Your task to perform on an android device: Check the weather Image 0: 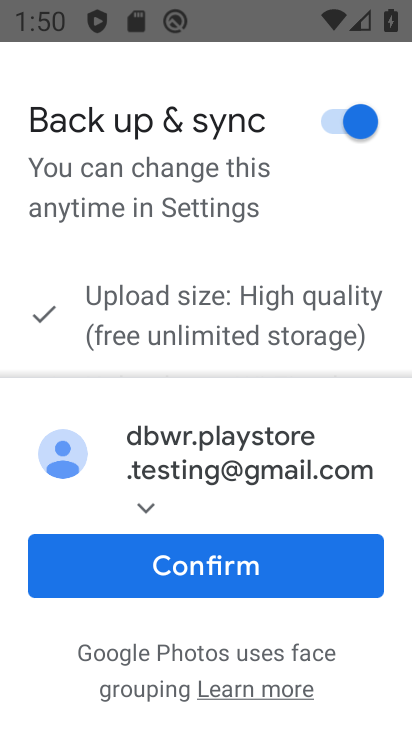
Step 0: press home button
Your task to perform on an android device: Check the weather Image 1: 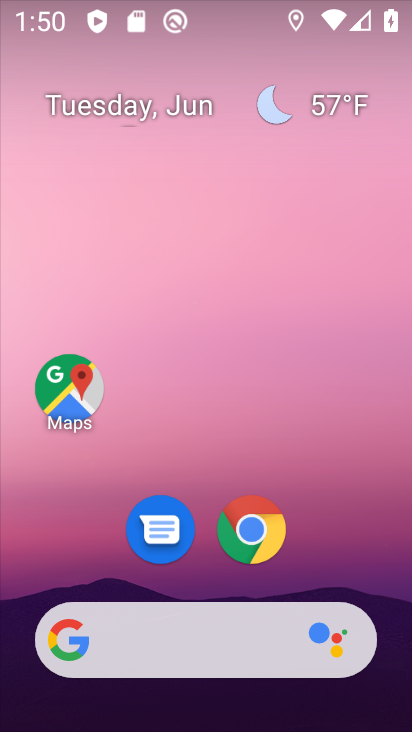
Step 1: drag from (8, 288) to (305, 259)
Your task to perform on an android device: Check the weather Image 2: 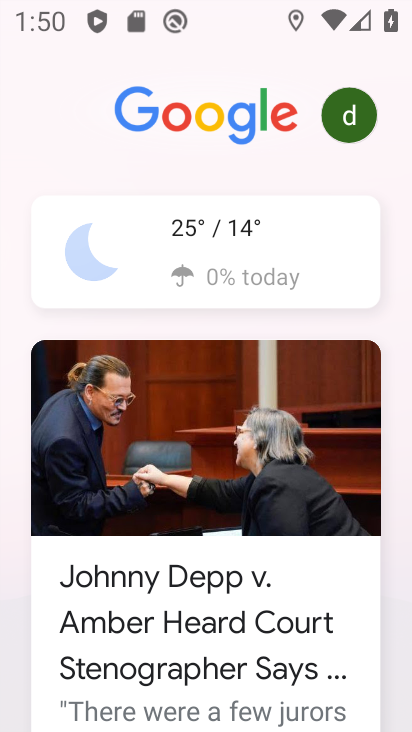
Step 2: click (274, 280)
Your task to perform on an android device: Check the weather Image 3: 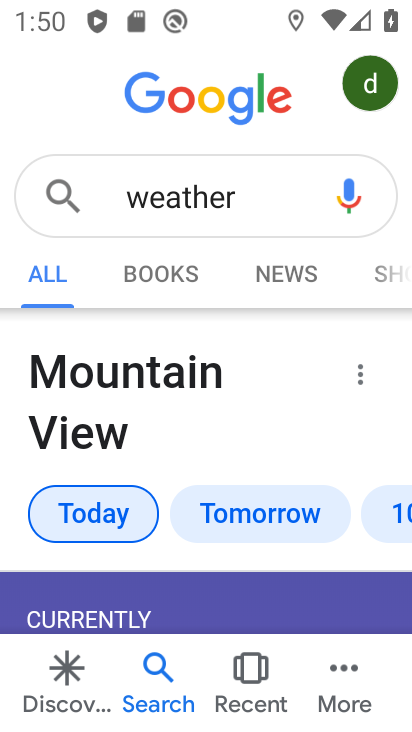
Step 3: task complete